Your task to perform on an android device: open app "Cash App" (install if not already installed), go to login, and select forgot password Image 0: 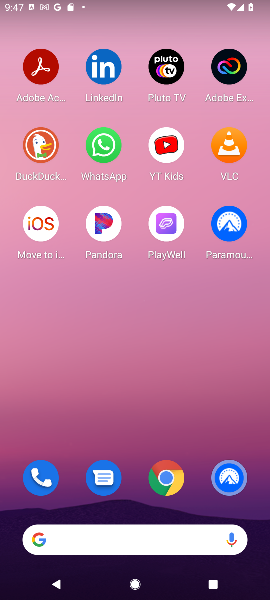
Step 0: drag from (129, 501) to (127, 114)
Your task to perform on an android device: open app "Cash App" (install if not already installed), go to login, and select forgot password Image 1: 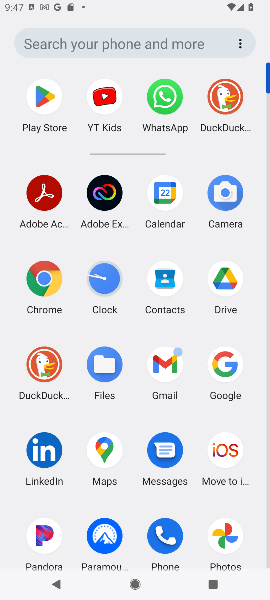
Step 1: click (54, 104)
Your task to perform on an android device: open app "Cash App" (install if not already installed), go to login, and select forgot password Image 2: 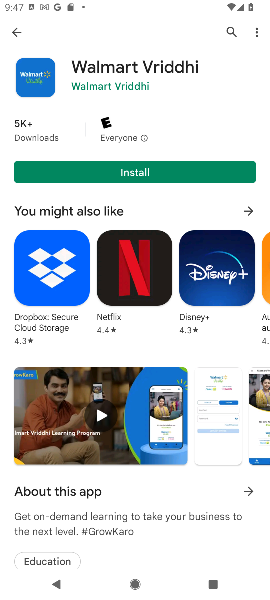
Step 2: click (58, 93)
Your task to perform on an android device: open app "Cash App" (install if not already installed), go to login, and select forgot password Image 3: 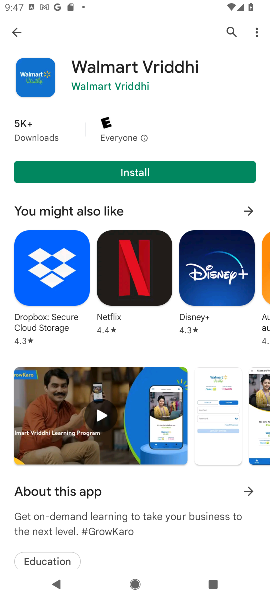
Step 3: click (227, 41)
Your task to perform on an android device: open app "Cash App" (install if not already installed), go to login, and select forgot password Image 4: 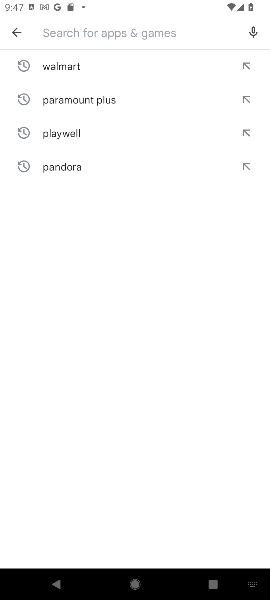
Step 4: type "cash app"
Your task to perform on an android device: open app "Cash App" (install if not already installed), go to login, and select forgot password Image 5: 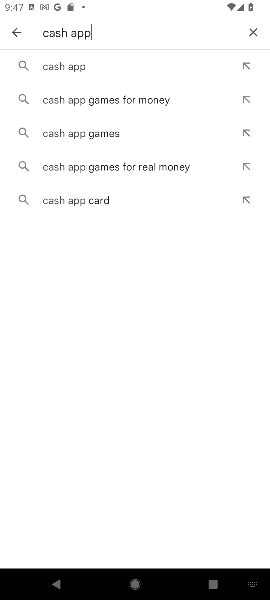
Step 5: click (81, 72)
Your task to perform on an android device: open app "Cash App" (install if not already installed), go to login, and select forgot password Image 6: 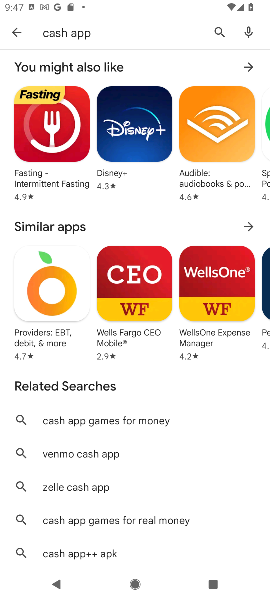
Step 6: task complete